Your task to perform on an android device: Play the last video I watched on Youtube Image 0: 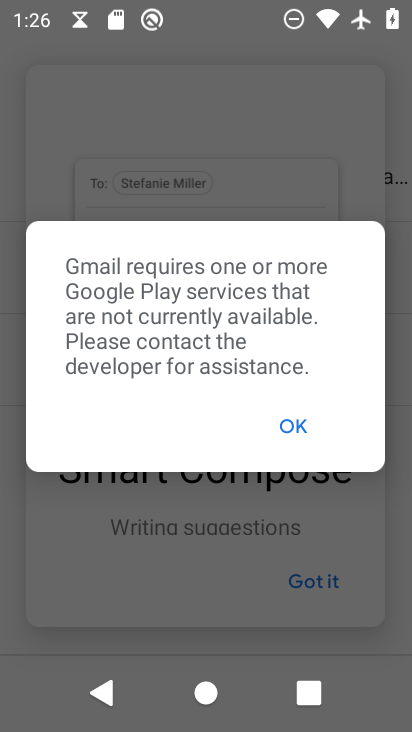
Step 0: click (295, 418)
Your task to perform on an android device: Play the last video I watched on Youtube Image 1: 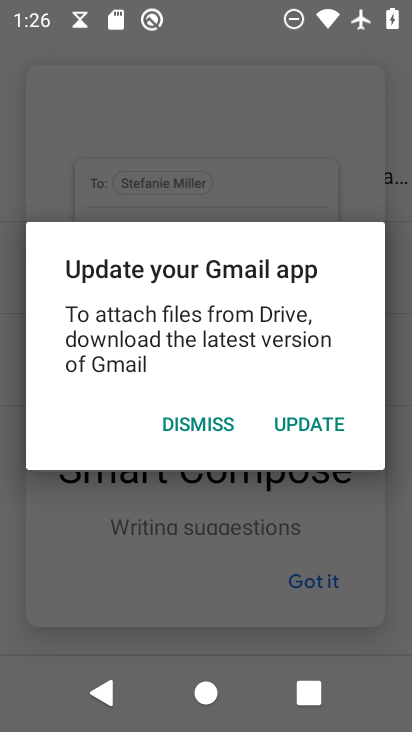
Step 1: press home button
Your task to perform on an android device: Play the last video I watched on Youtube Image 2: 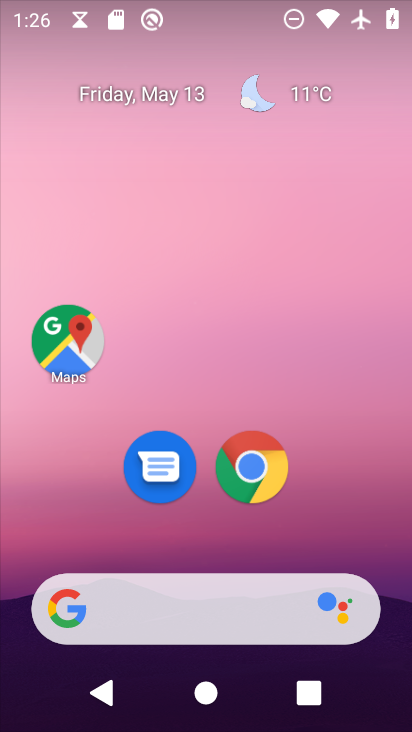
Step 2: drag from (325, 531) to (215, 131)
Your task to perform on an android device: Play the last video I watched on Youtube Image 3: 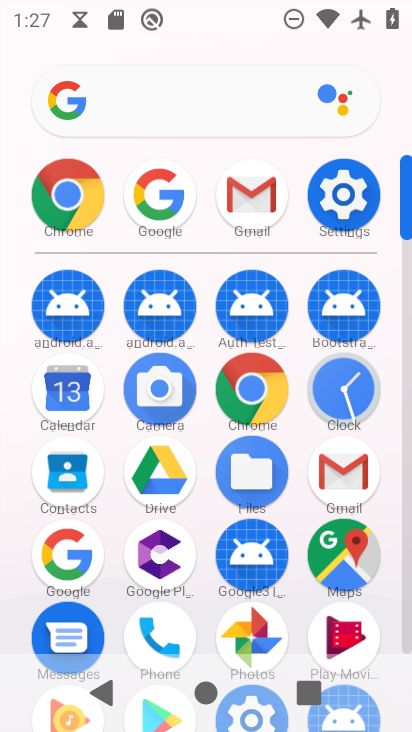
Step 3: drag from (290, 668) to (290, 273)
Your task to perform on an android device: Play the last video I watched on Youtube Image 4: 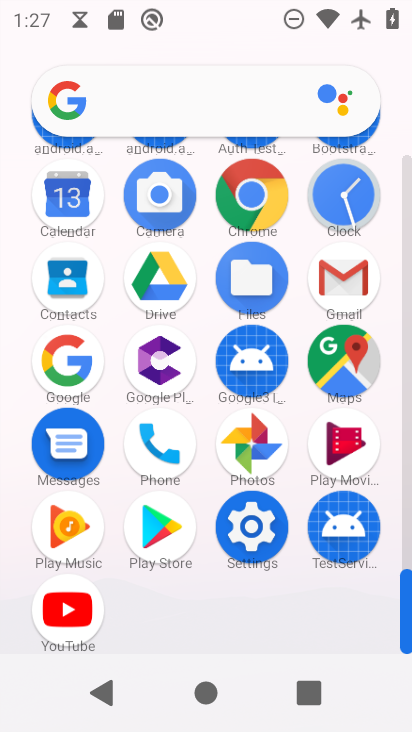
Step 4: click (80, 602)
Your task to perform on an android device: Play the last video I watched on Youtube Image 5: 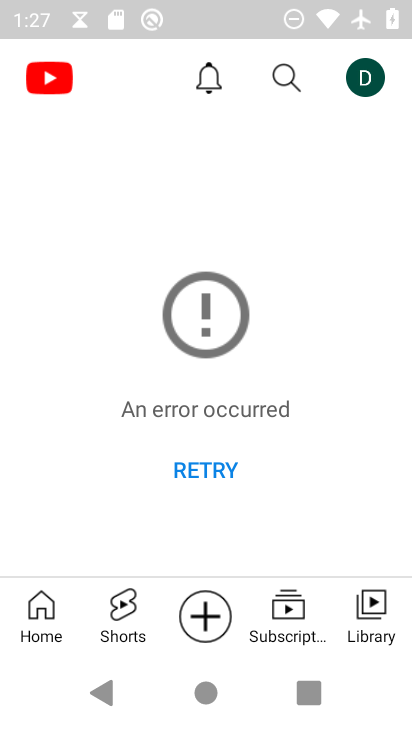
Step 5: click (372, 616)
Your task to perform on an android device: Play the last video I watched on Youtube Image 6: 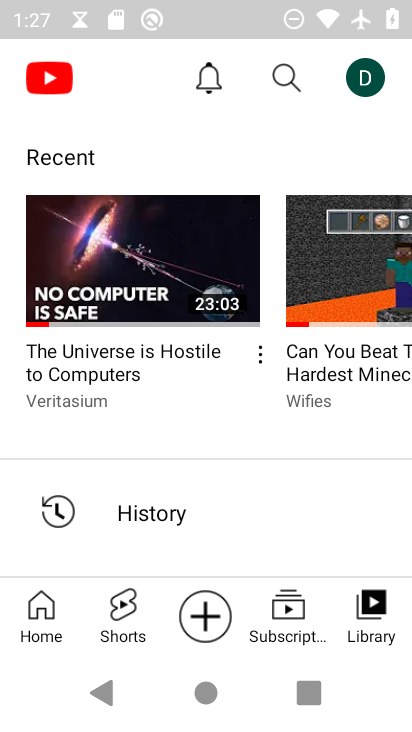
Step 6: click (99, 264)
Your task to perform on an android device: Play the last video I watched on Youtube Image 7: 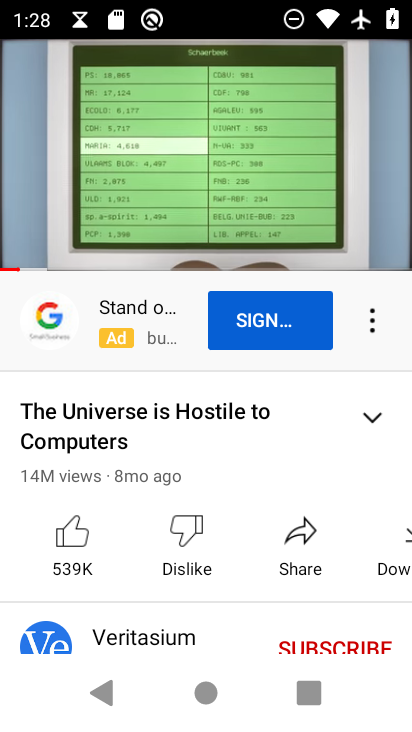
Step 7: click (182, 149)
Your task to perform on an android device: Play the last video I watched on Youtube Image 8: 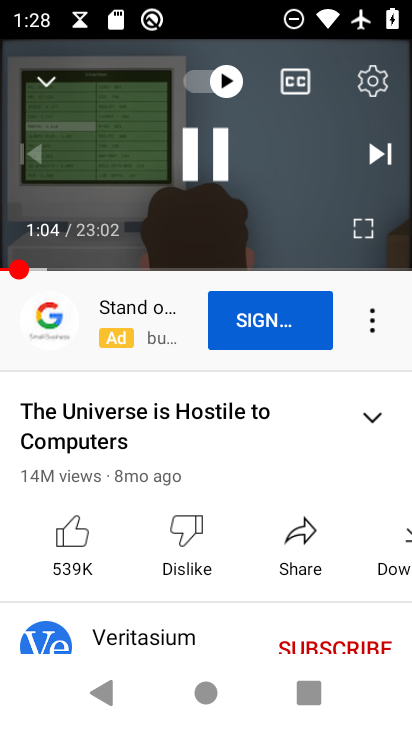
Step 8: click (185, 139)
Your task to perform on an android device: Play the last video I watched on Youtube Image 9: 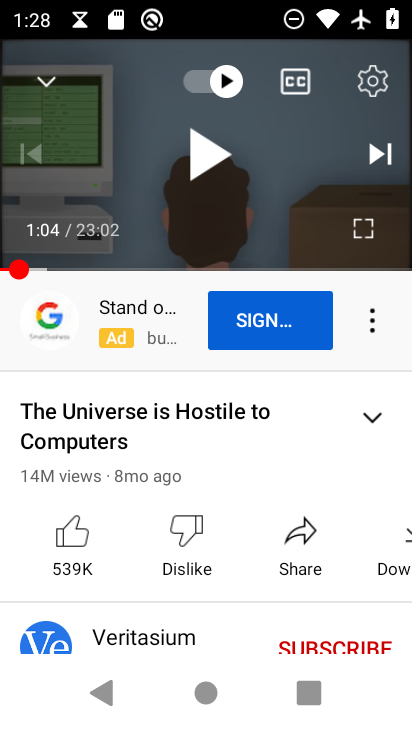
Step 9: task complete